Your task to perform on an android device: turn on bluetooth scan Image 0: 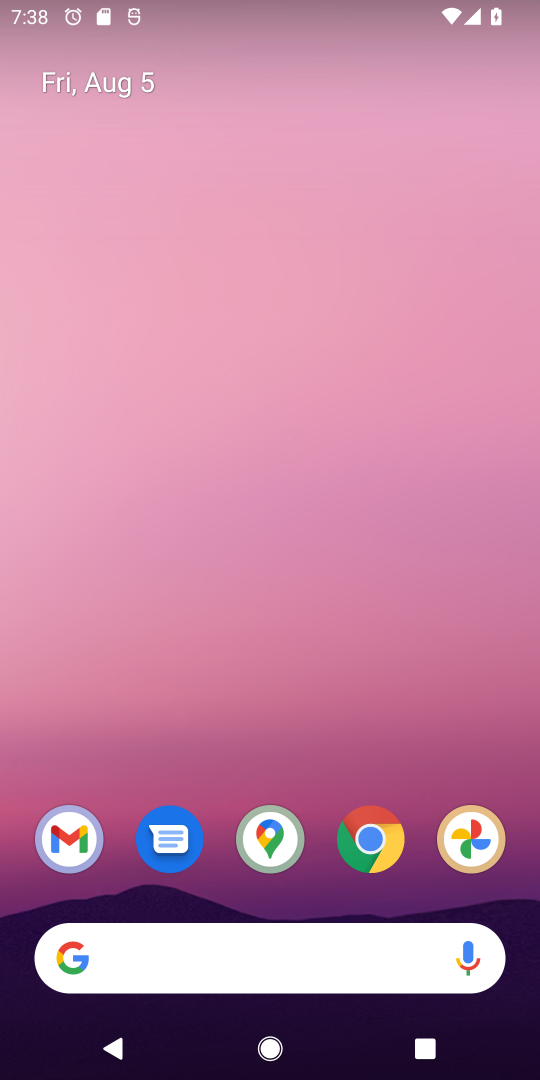
Step 0: drag from (260, 769) to (218, 240)
Your task to perform on an android device: turn on bluetooth scan Image 1: 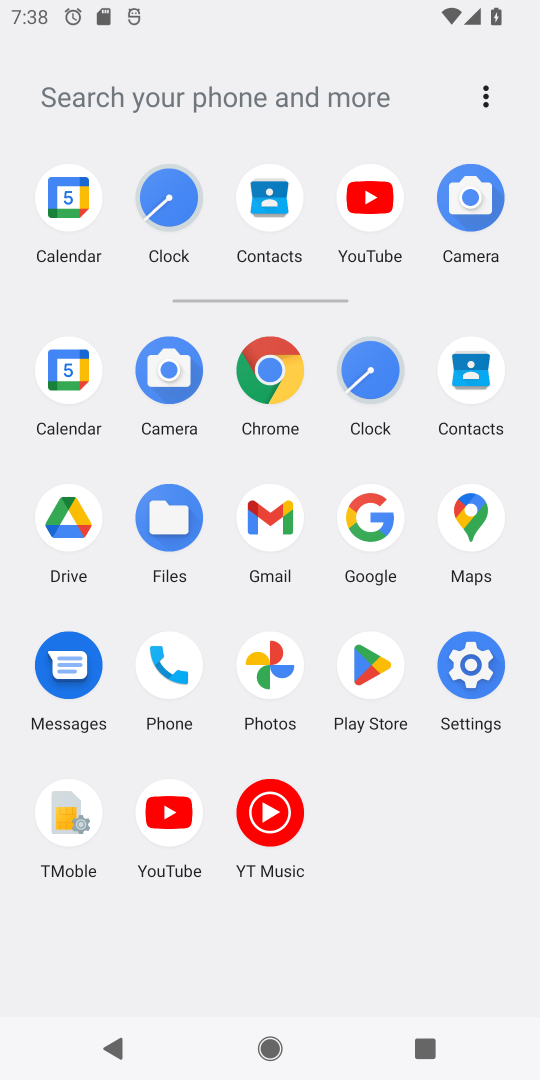
Step 1: click (448, 662)
Your task to perform on an android device: turn on bluetooth scan Image 2: 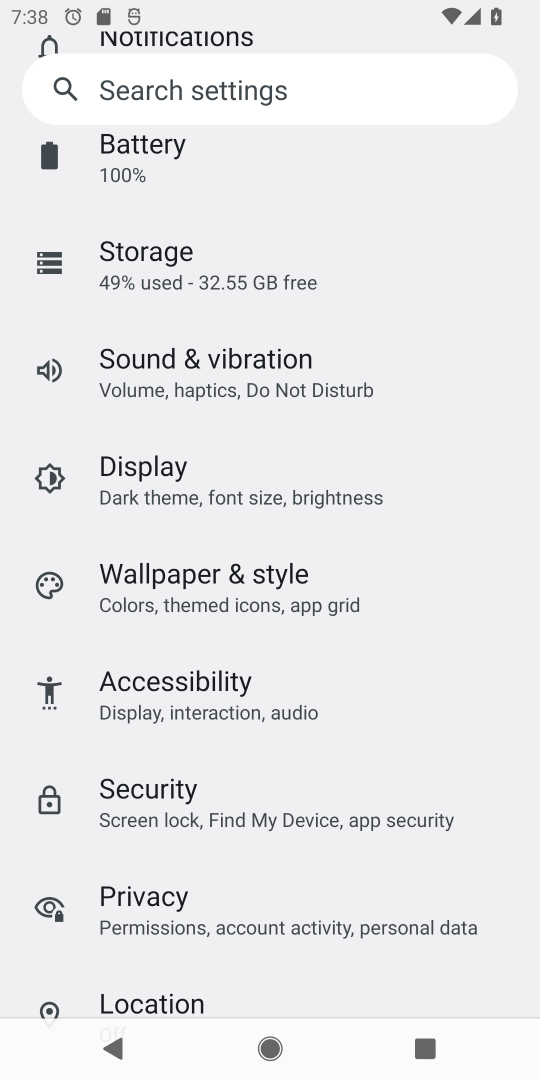
Step 2: drag from (226, 852) to (271, 268)
Your task to perform on an android device: turn on bluetooth scan Image 3: 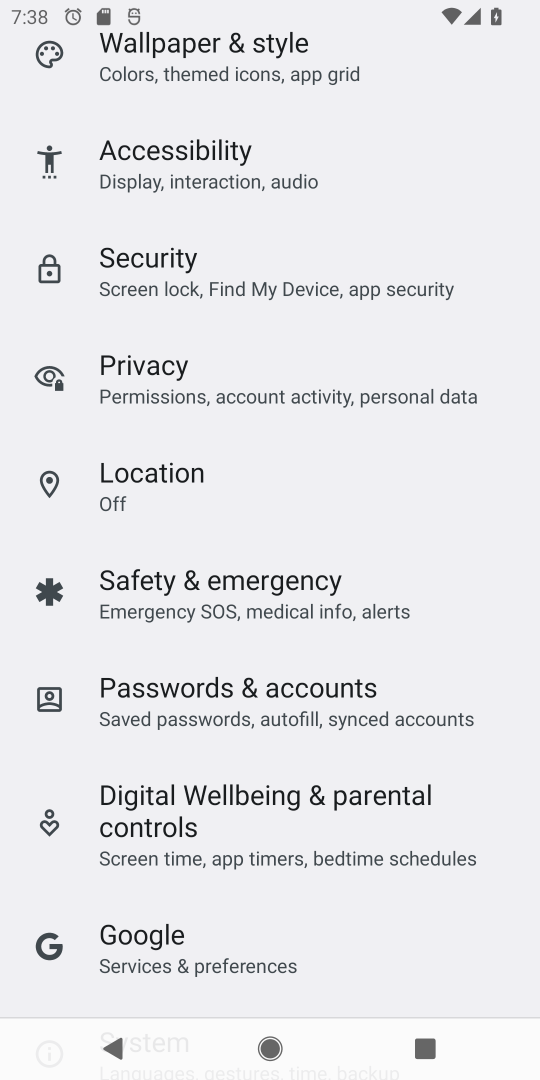
Step 3: click (203, 472)
Your task to perform on an android device: turn on bluetooth scan Image 4: 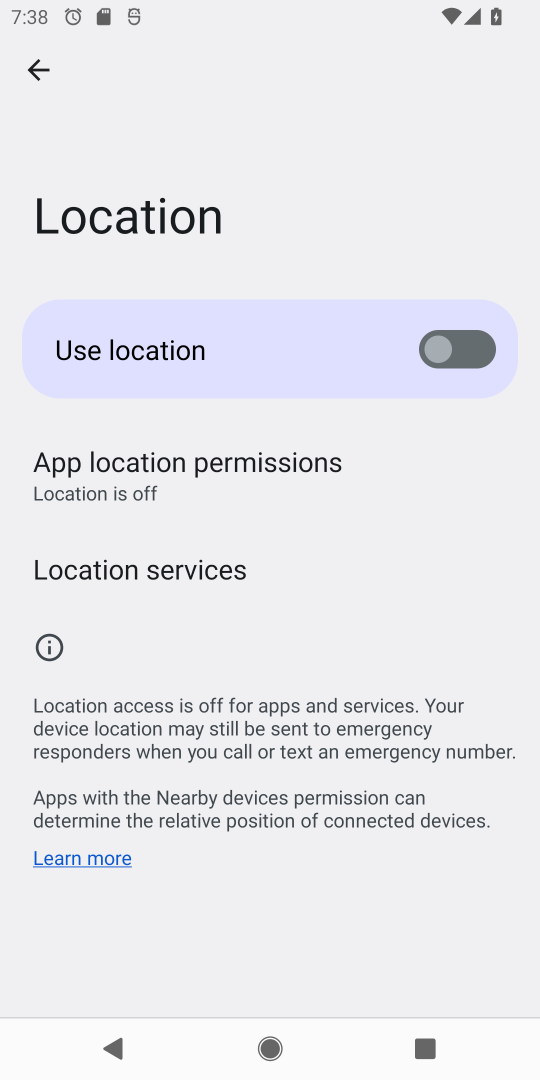
Step 4: drag from (290, 812) to (298, 451)
Your task to perform on an android device: turn on bluetooth scan Image 5: 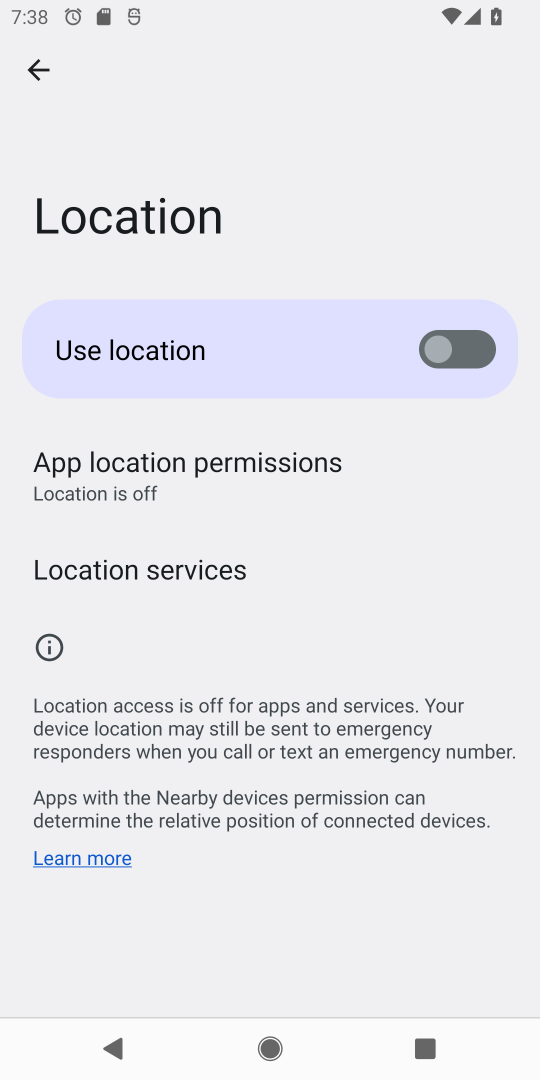
Step 5: click (248, 585)
Your task to perform on an android device: turn on bluetooth scan Image 6: 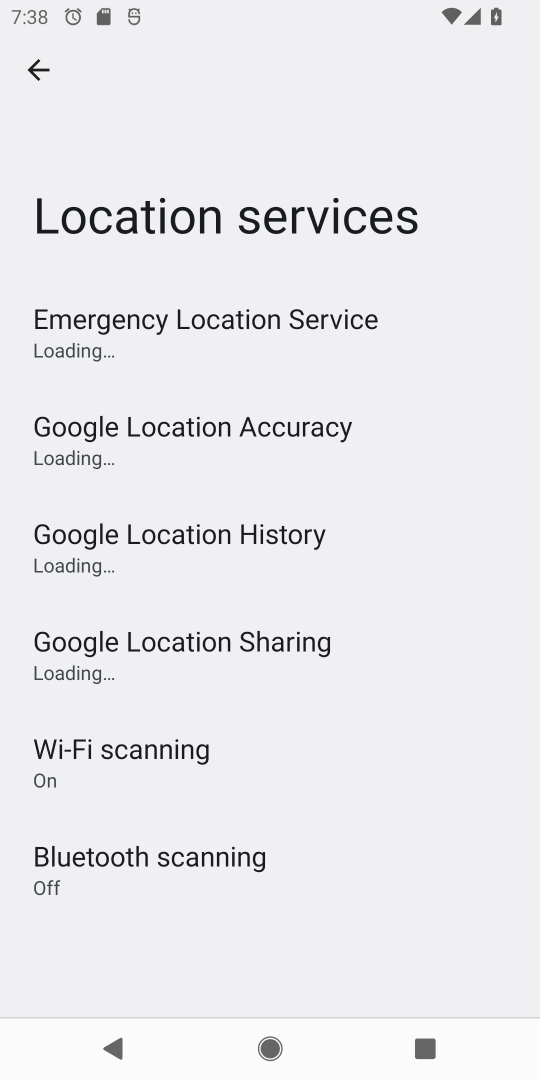
Step 6: click (203, 879)
Your task to perform on an android device: turn on bluetooth scan Image 7: 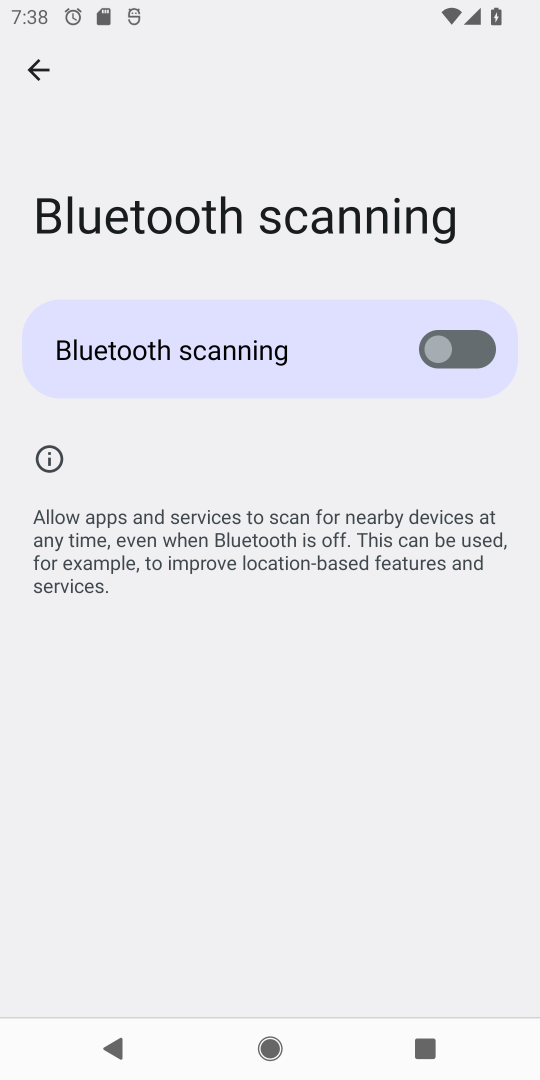
Step 7: click (466, 352)
Your task to perform on an android device: turn on bluetooth scan Image 8: 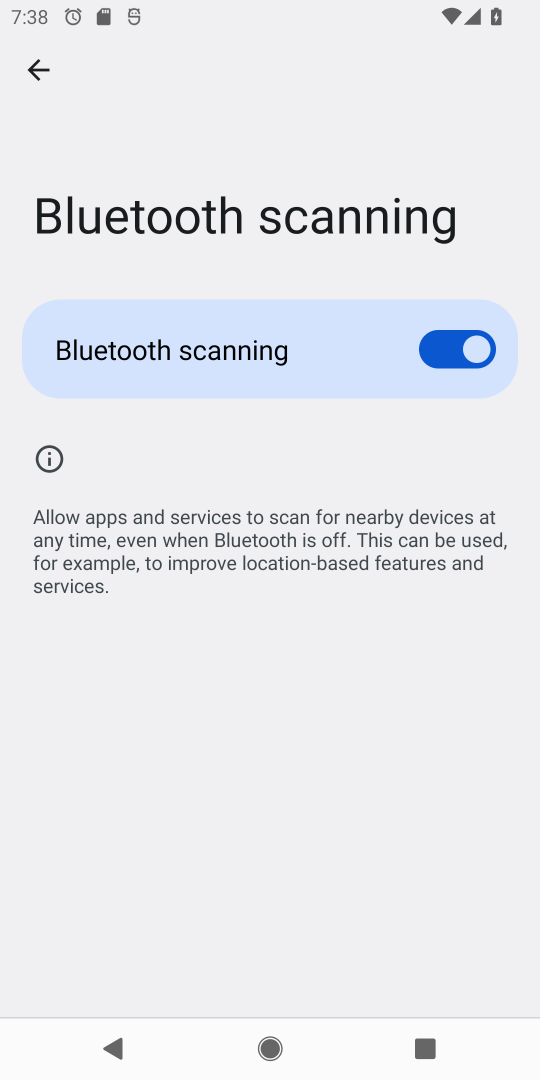
Step 8: task complete